Your task to perform on an android device: Open the calendar and show me this week's events? Image 0: 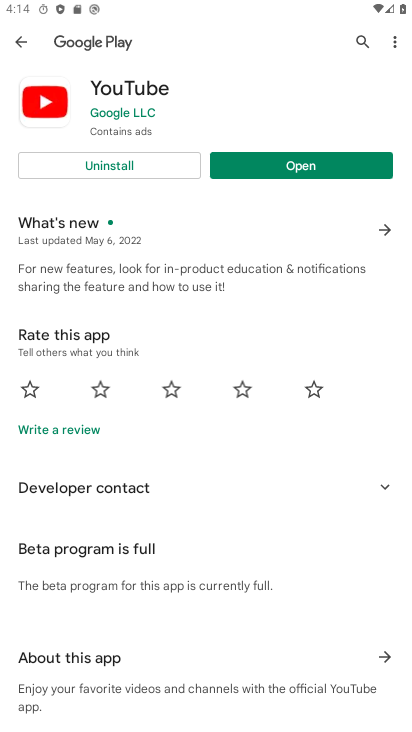
Step 0: press home button
Your task to perform on an android device: Open the calendar and show me this week's events? Image 1: 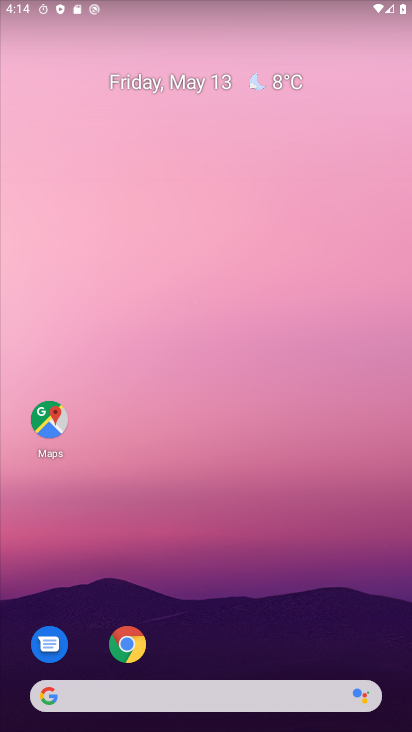
Step 1: drag from (201, 631) to (224, 74)
Your task to perform on an android device: Open the calendar and show me this week's events? Image 2: 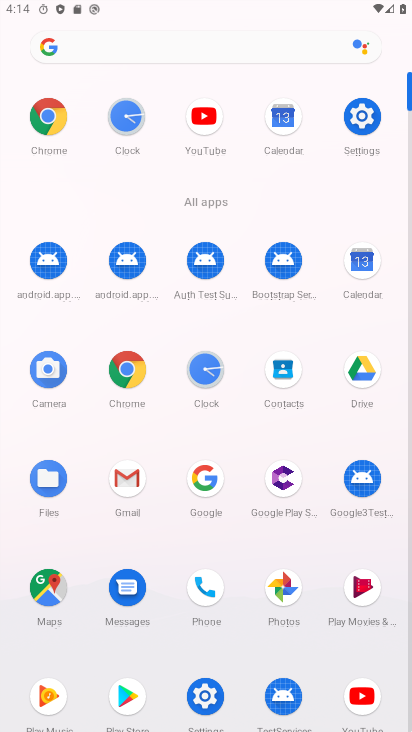
Step 2: click (276, 120)
Your task to perform on an android device: Open the calendar and show me this week's events? Image 3: 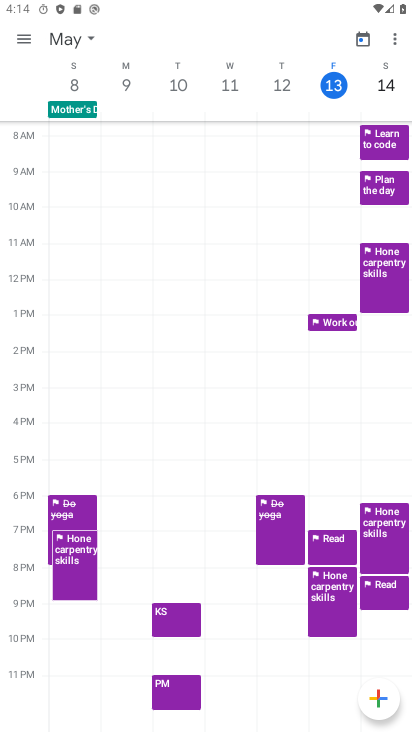
Step 3: task complete